Your task to perform on an android device: set the timer Image 0: 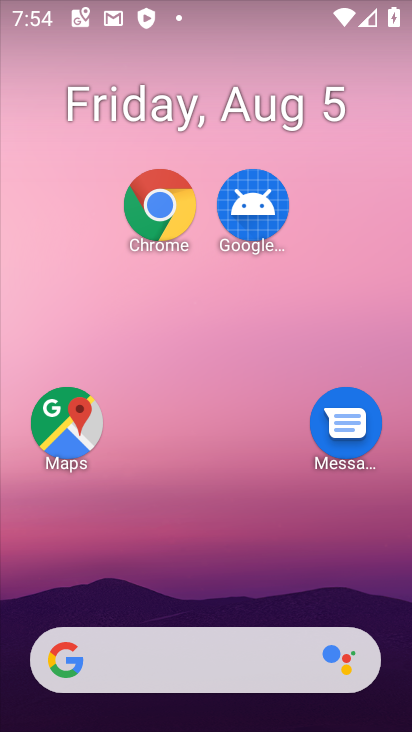
Step 0: drag from (300, 588) to (184, 71)
Your task to perform on an android device: set the timer Image 1: 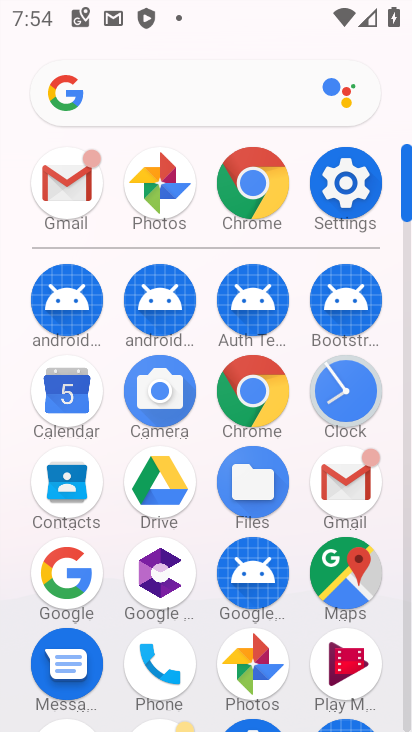
Step 1: click (343, 381)
Your task to perform on an android device: set the timer Image 2: 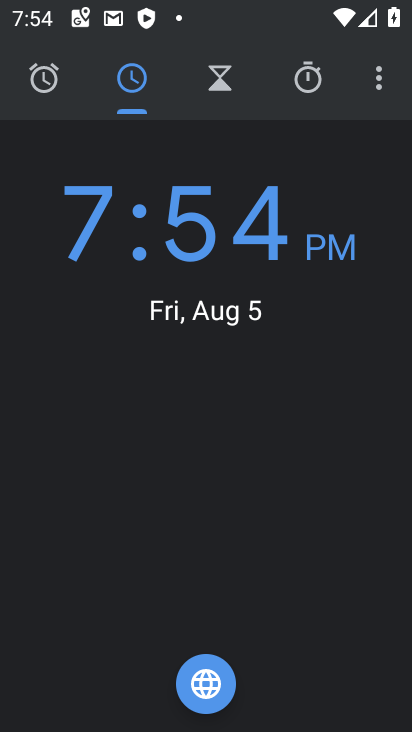
Step 2: click (210, 75)
Your task to perform on an android device: set the timer Image 3: 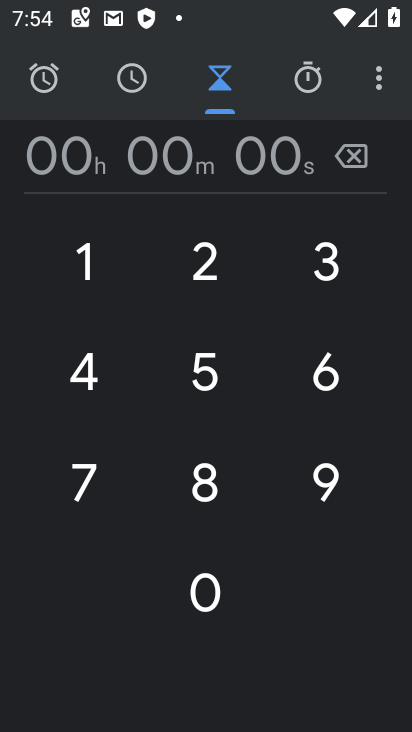
Step 3: click (180, 227)
Your task to perform on an android device: set the timer Image 4: 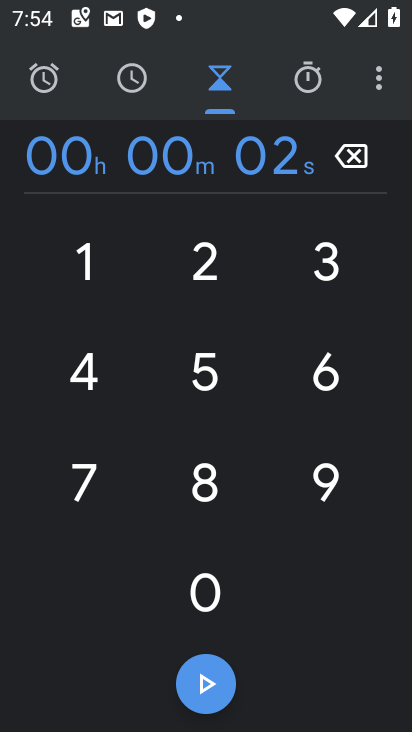
Step 4: click (205, 681)
Your task to perform on an android device: set the timer Image 5: 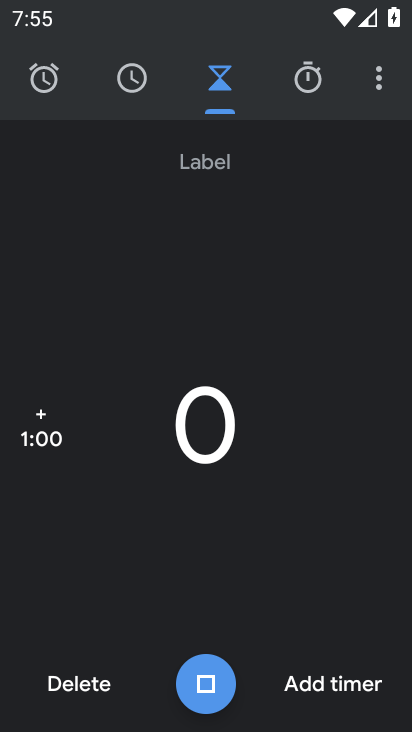
Step 5: task complete